Your task to perform on an android device: Go to network settings Image 0: 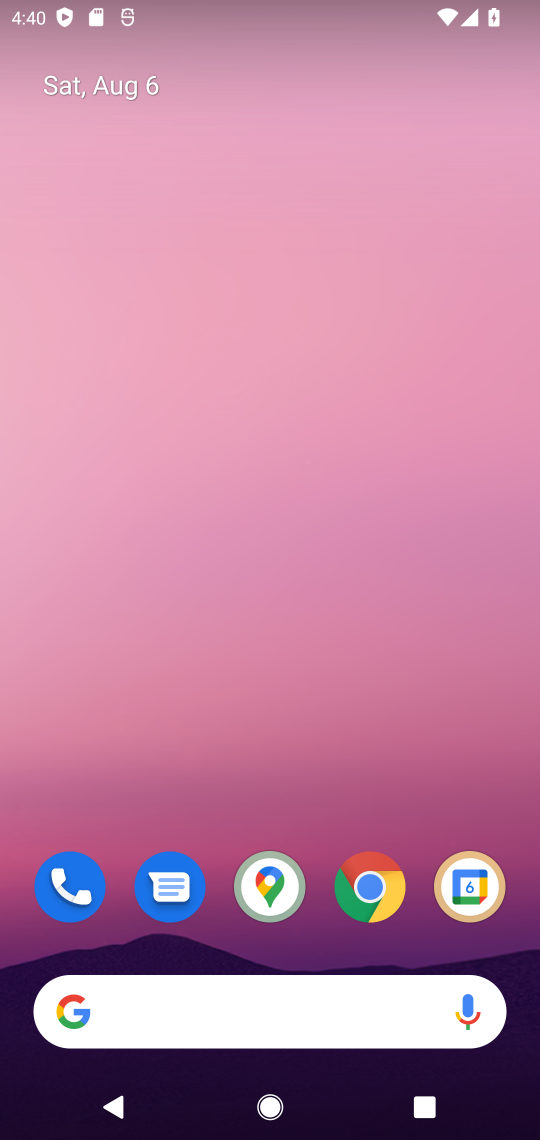
Step 0: drag from (300, 1005) to (436, 42)
Your task to perform on an android device: Go to network settings Image 1: 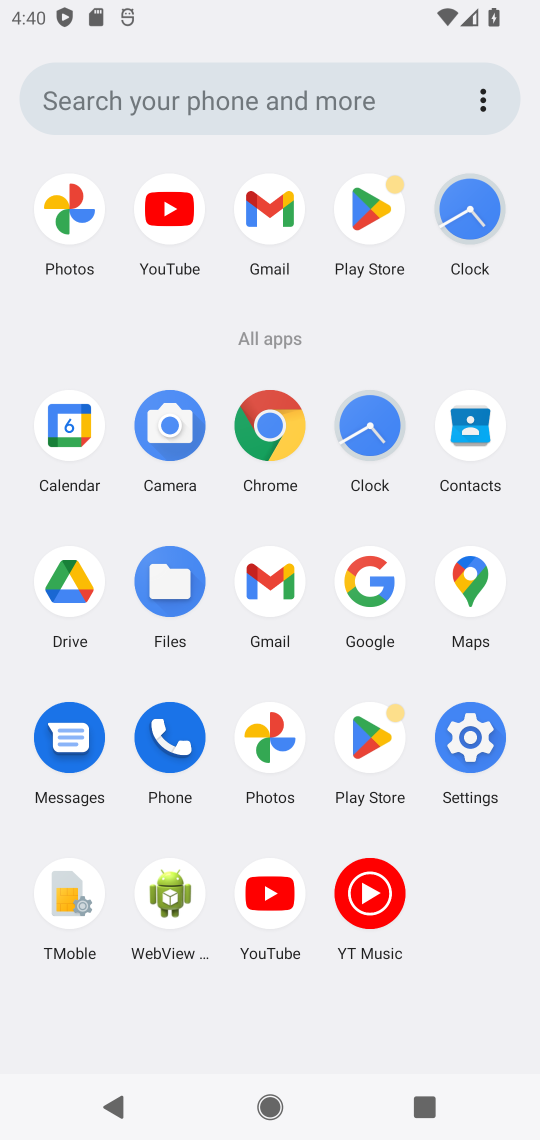
Step 1: click (477, 745)
Your task to perform on an android device: Go to network settings Image 2: 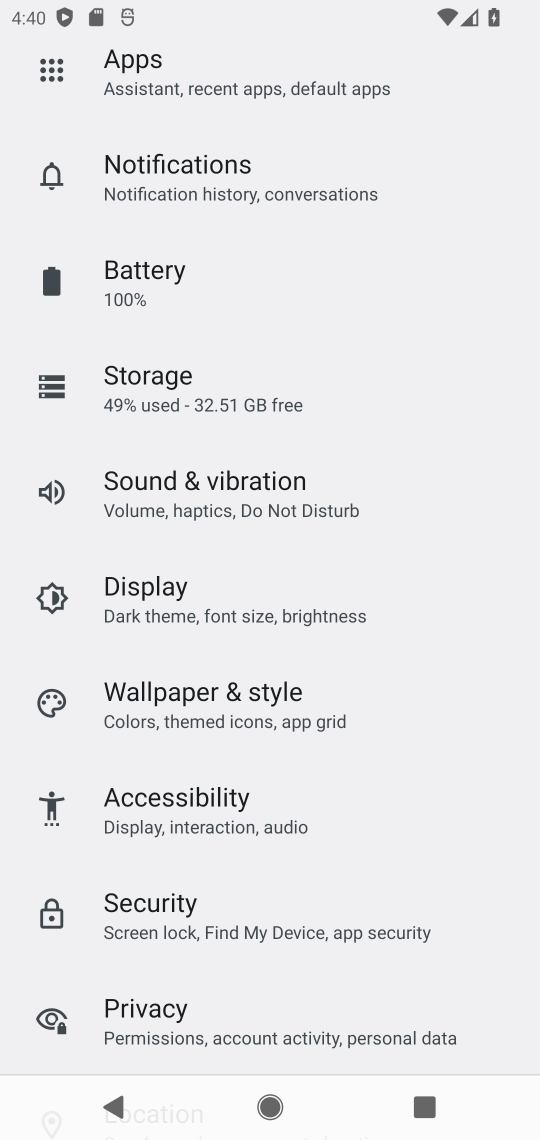
Step 2: drag from (264, 224) to (253, 850)
Your task to perform on an android device: Go to network settings Image 3: 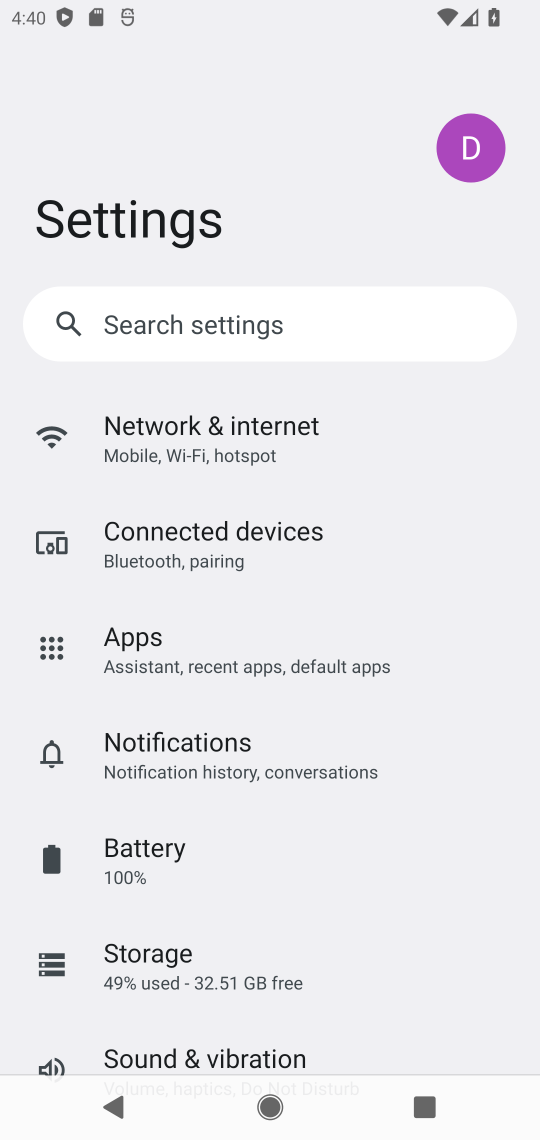
Step 3: click (201, 431)
Your task to perform on an android device: Go to network settings Image 4: 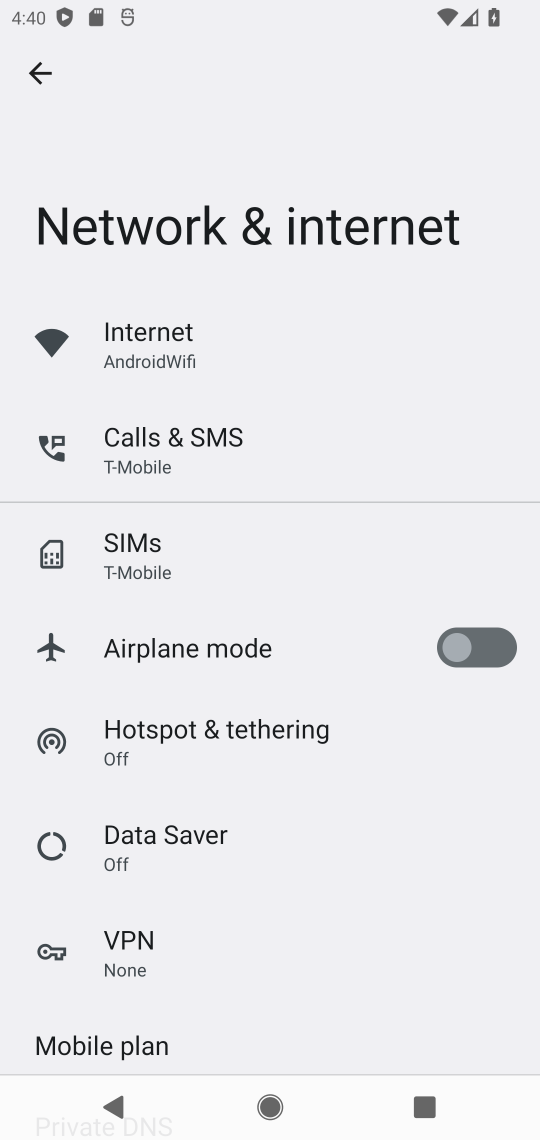
Step 4: task complete